Your task to perform on an android device: Open Wikipedia Image 0: 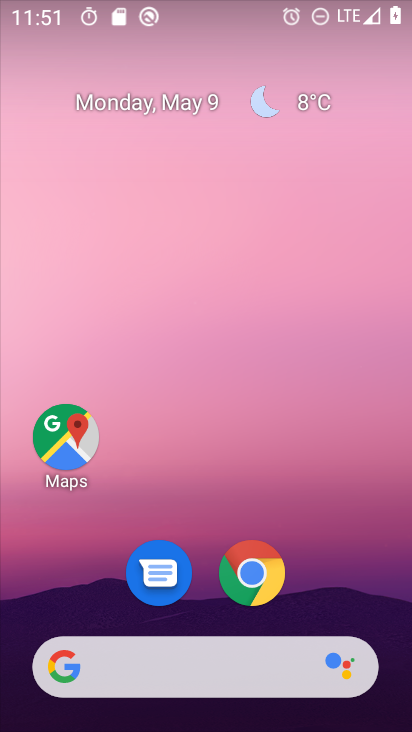
Step 0: click (251, 568)
Your task to perform on an android device: Open Wikipedia Image 1: 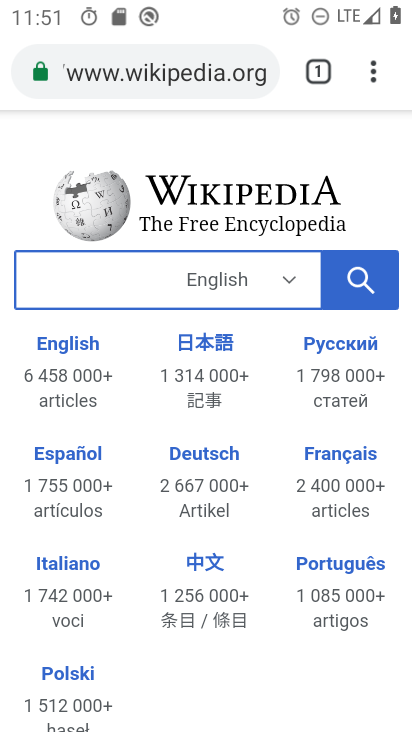
Step 1: task complete